Your task to perform on an android device: find photos in the google photos app Image 0: 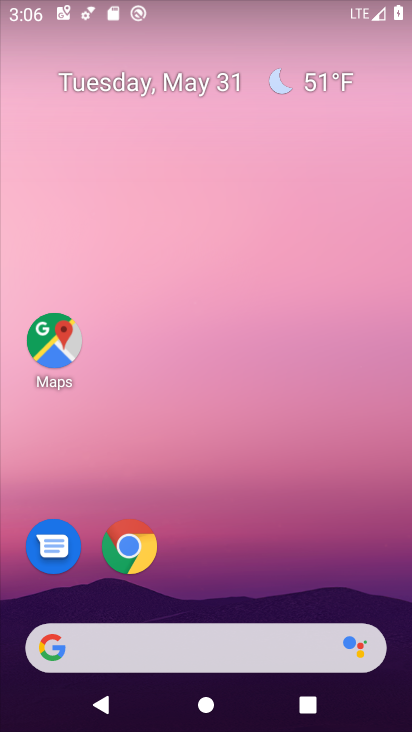
Step 0: drag from (276, 575) to (198, 50)
Your task to perform on an android device: find photos in the google photos app Image 1: 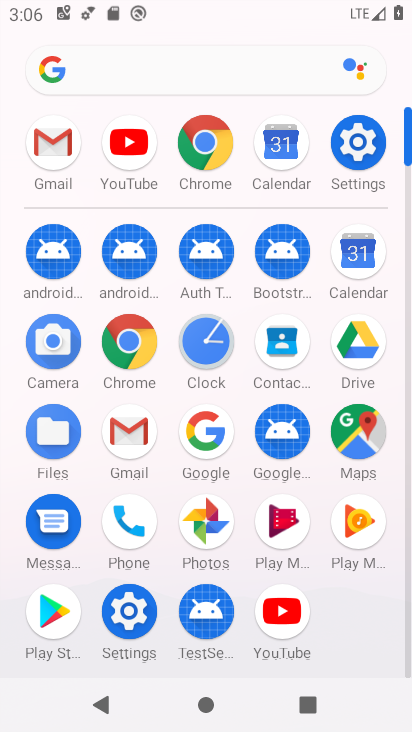
Step 1: click (212, 503)
Your task to perform on an android device: find photos in the google photos app Image 2: 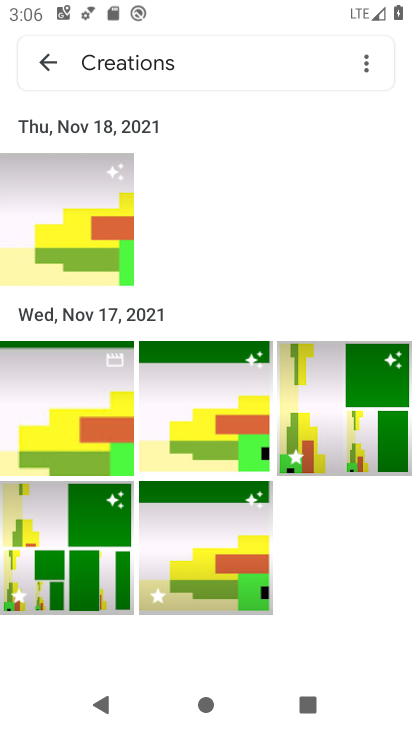
Step 2: click (52, 52)
Your task to perform on an android device: find photos in the google photos app Image 3: 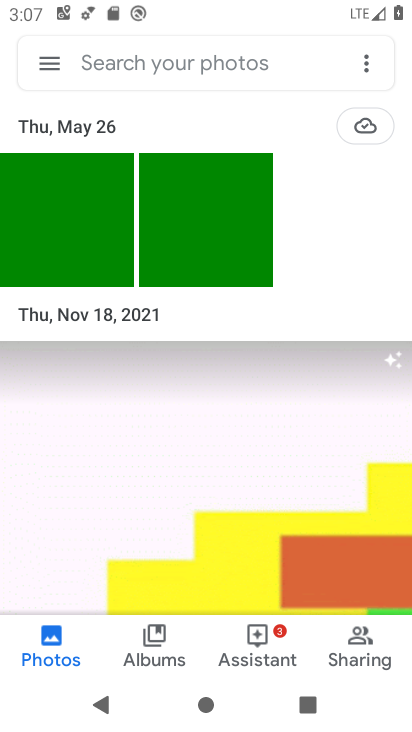
Step 3: click (46, 632)
Your task to perform on an android device: find photos in the google photos app Image 4: 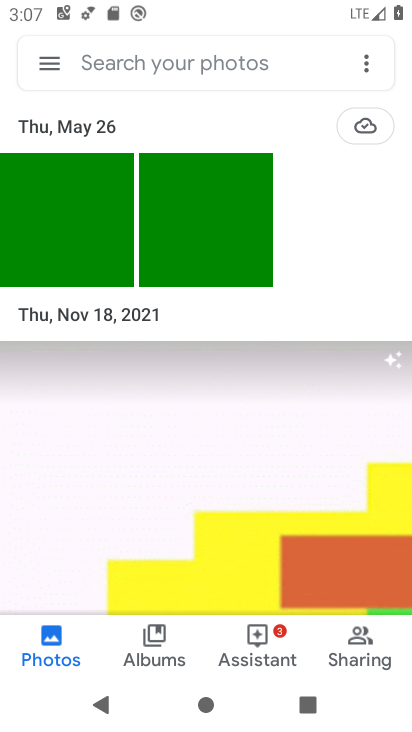
Step 4: task complete